Your task to perform on an android device: Toggle the flashlight Image 0: 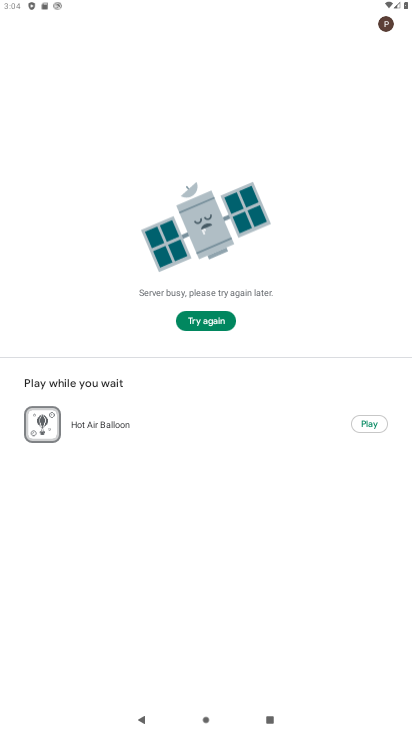
Step 0: press home button
Your task to perform on an android device: Toggle the flashlight Image 1: 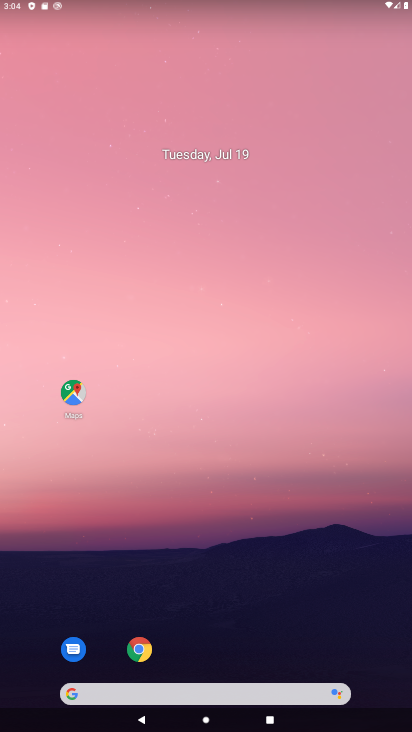
Step 1: drag from (215, 620) to (257, 25)
Your task to perform on an android device: Toggle the flashlight Image 2: 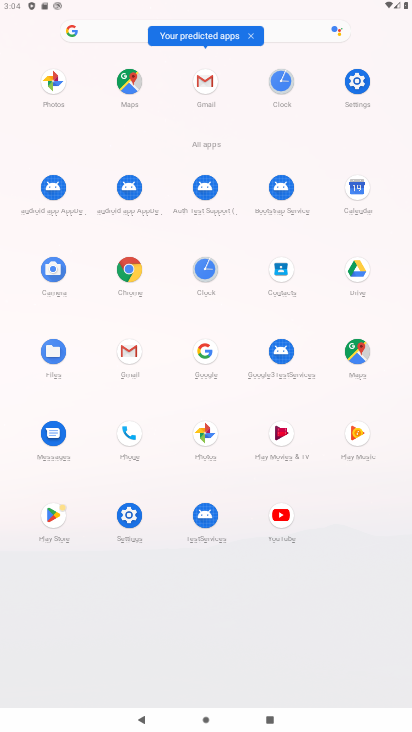
Step 2: click (367, 86)
Your task to perform on an android device: Toggle the flashlight Image 3: 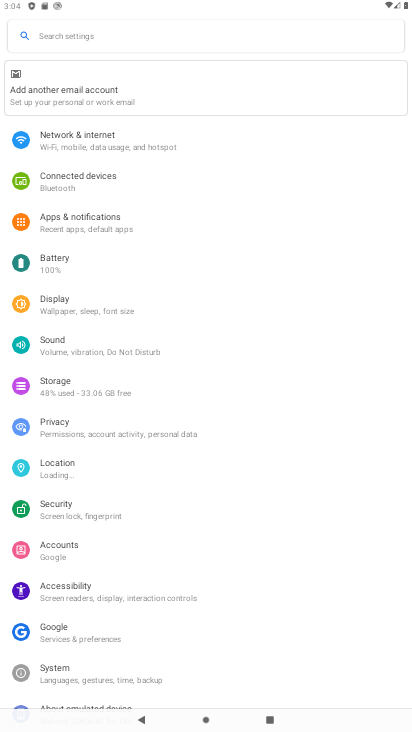
Step 3: task complete